Your task to perform on an android device: What's on my calendar tomorrow? Image 0: 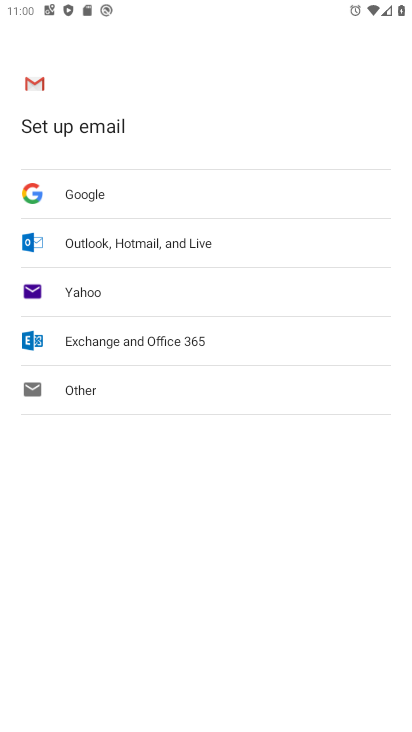
Step 0: press home button
Your task to perform on an android device: What's on my calendar tomorrow? Image 1: 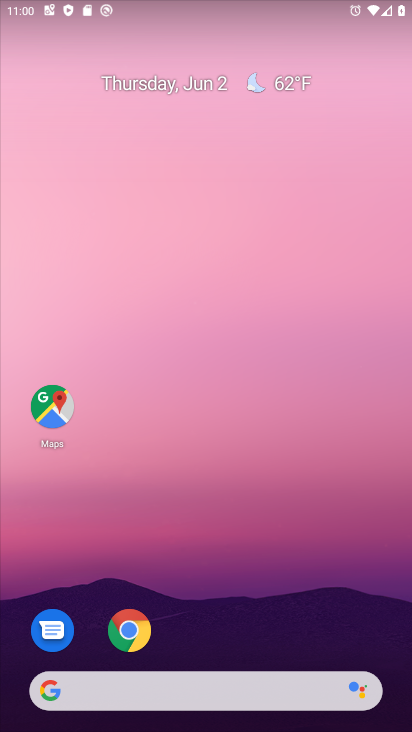
Step 1: drag from (181, 691) to (247, 208)
Your task to perform on an android device: What's on my calendar tomorrow? Image 2: 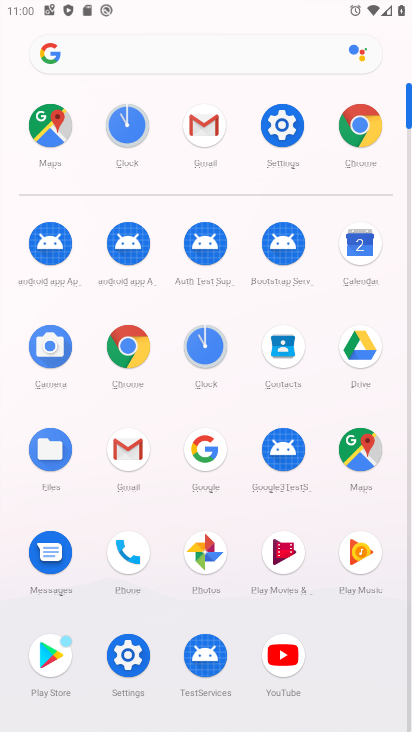
Step 2: click (358, 250)
Your task to perform on an android device: What's on my calendar tomorrow? Image 3: 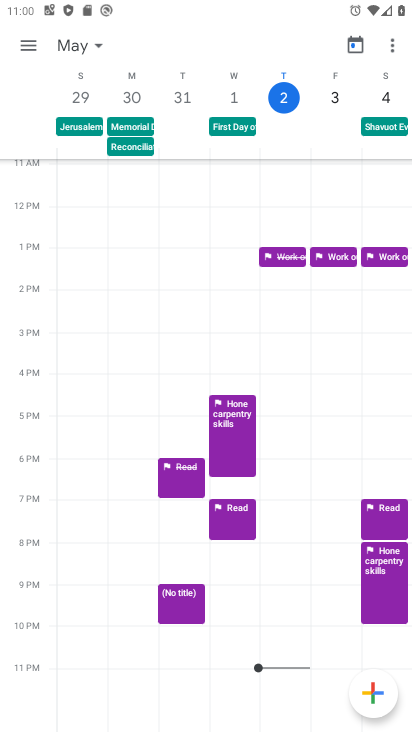
Step 3: click (76, 42)
Your task to perform on an android device: What's on my calendar tomorrow? Image 4: 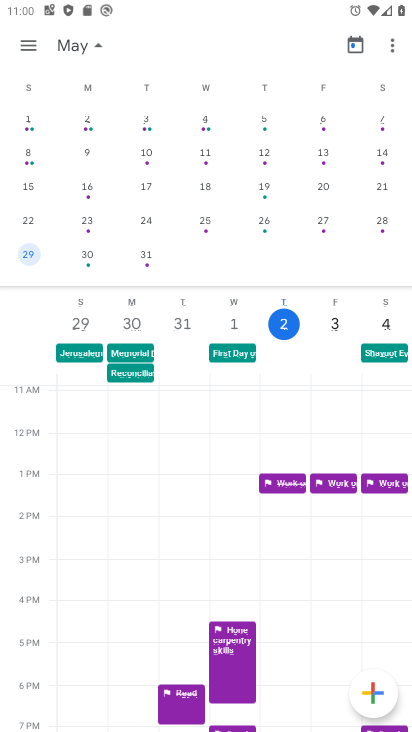
Step 4: drag from (368, 186) to (23, 238)
Your task to perform on an android device: What's on my calendar tomorrow? Image 5: 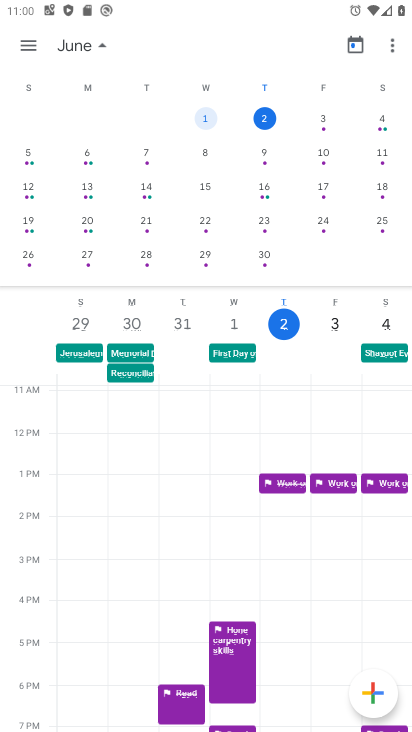
Step 5: click (322, 118)
Your task to perform on an android device: What's on my calendar tomorrow? Image 6: 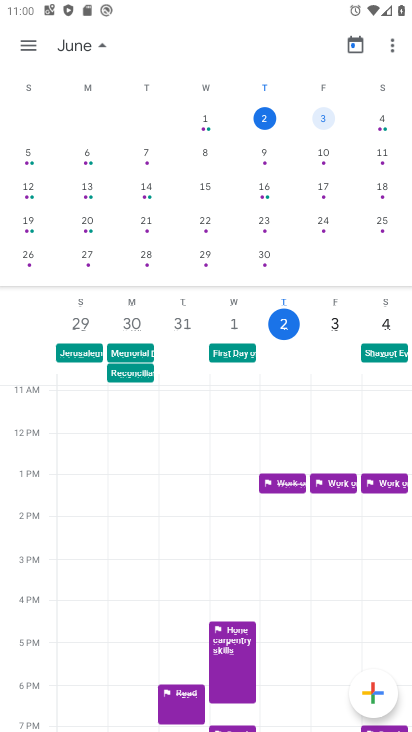
Step 6: click (30, 43)
Your task to perform on an android device: What's on my calendar tomorrow? Image 7: 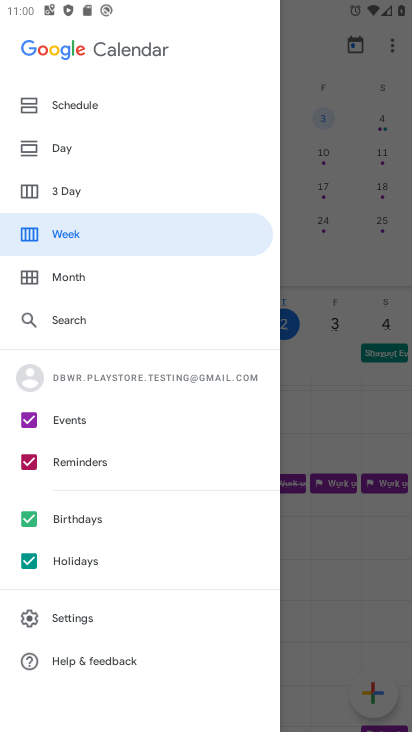
Step 7: click (75, 103)
Your task to perform on an android device: What's on my calendar tomorrow? Image 8: 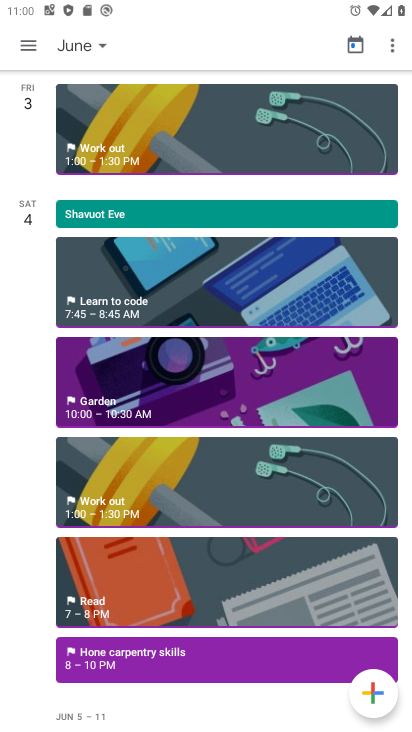
Step 8: task complete